Your task to perform on an android device: open app "Walmart Shopping & Grocery" (install if not already installed) and go to login screen Image 0: 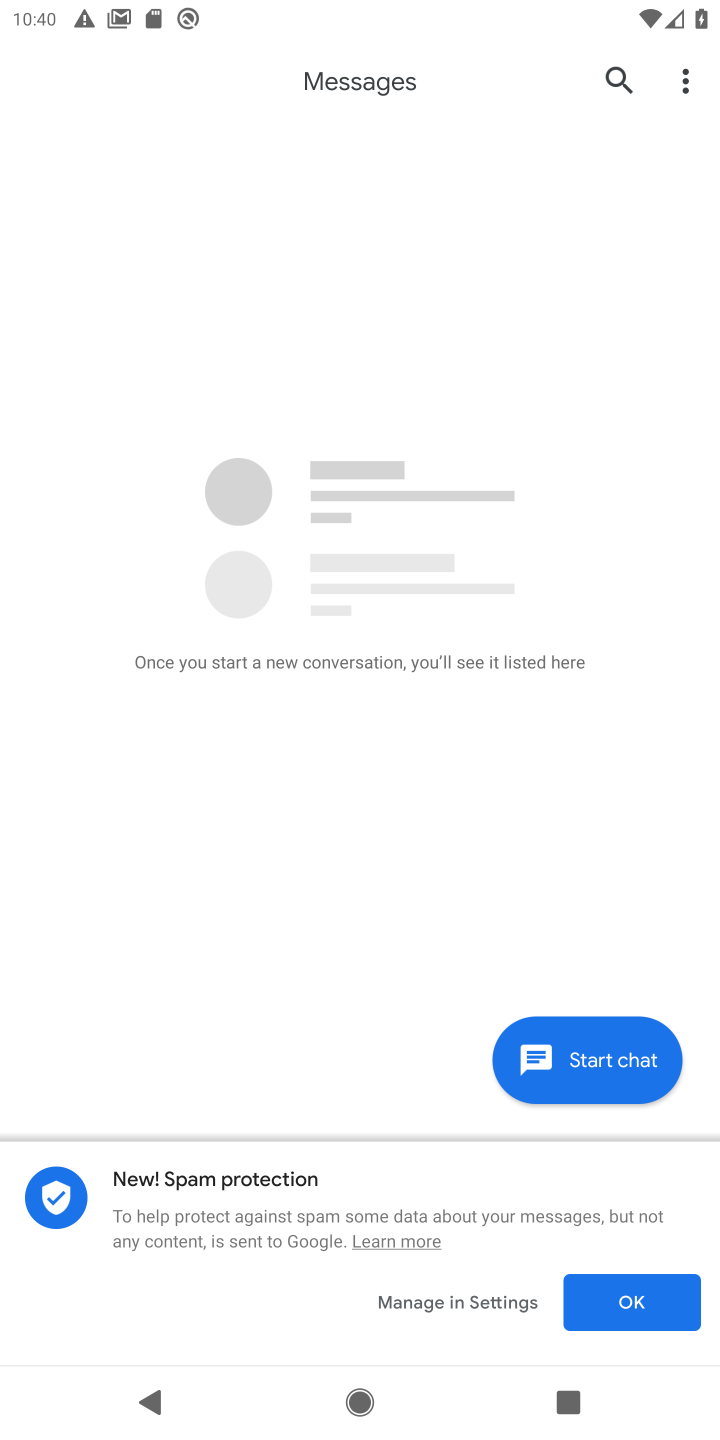
Step 0: press back button
Your task to perform on an android device: open app "Walmart Shopping & Grocery" (install if not already installed) and go to login screen Image 1: 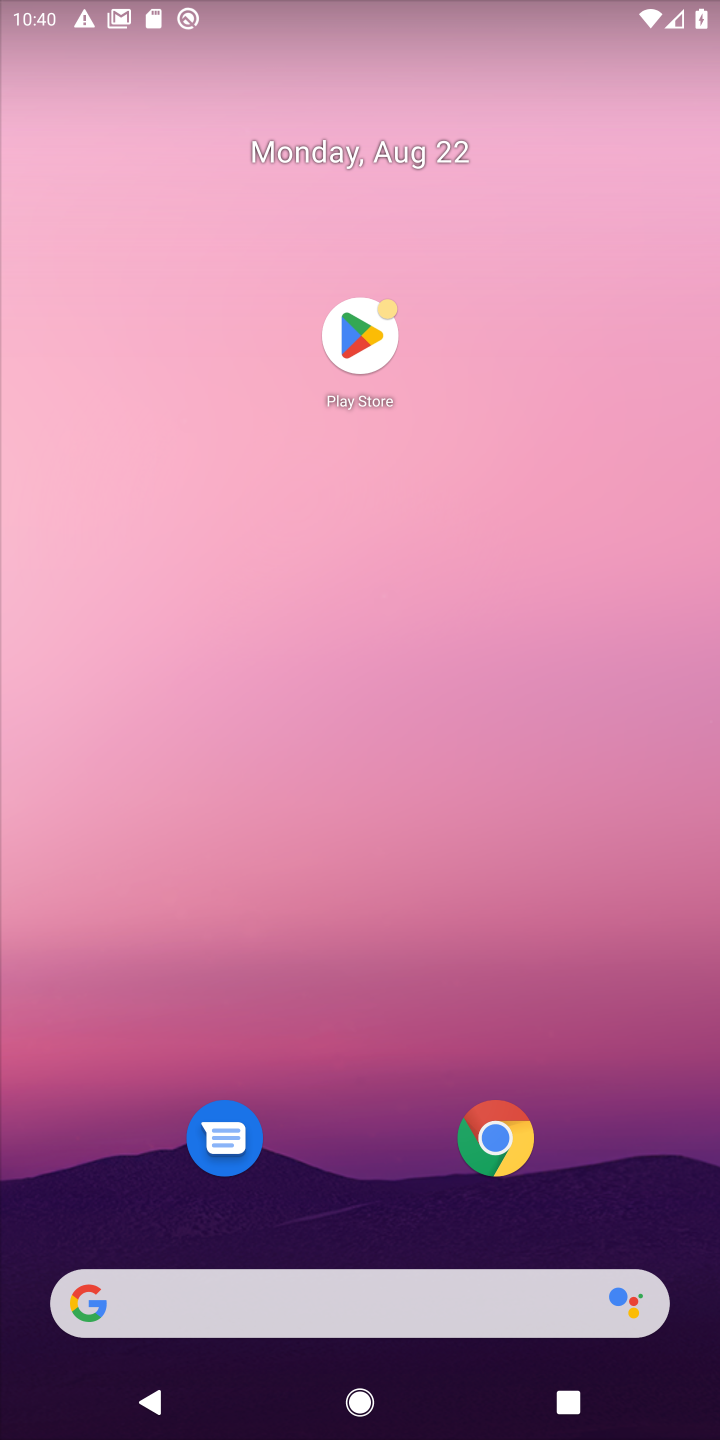
Step 1: click (354, 324)
Your task to perform on an android device: open app "Walmart Shopping & Grocery" (install if not already installed) and go to login screen Image 2: 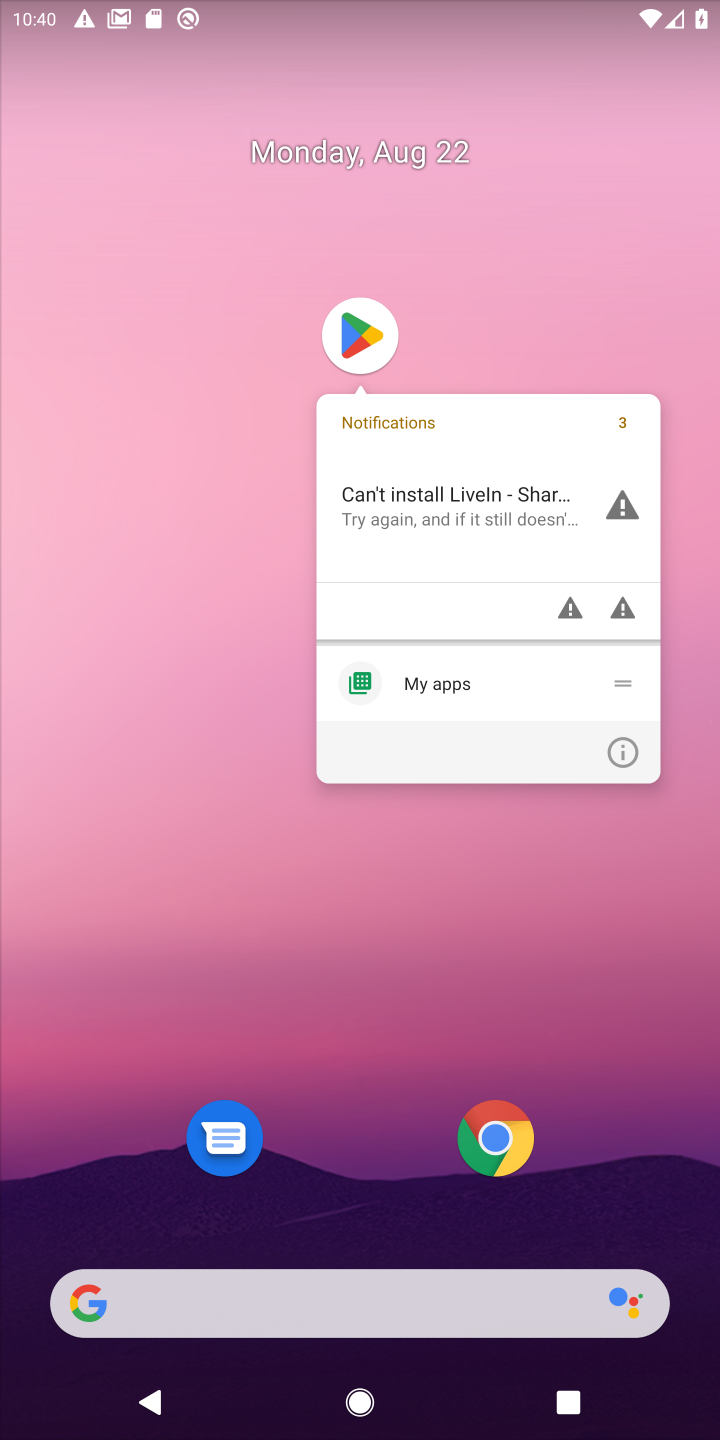
Step 2: click (354, 324)
Your task to perform on an android device: open app "Walmart Shopping & Grocery" (install if not already installed) and go to login screen Image 3: 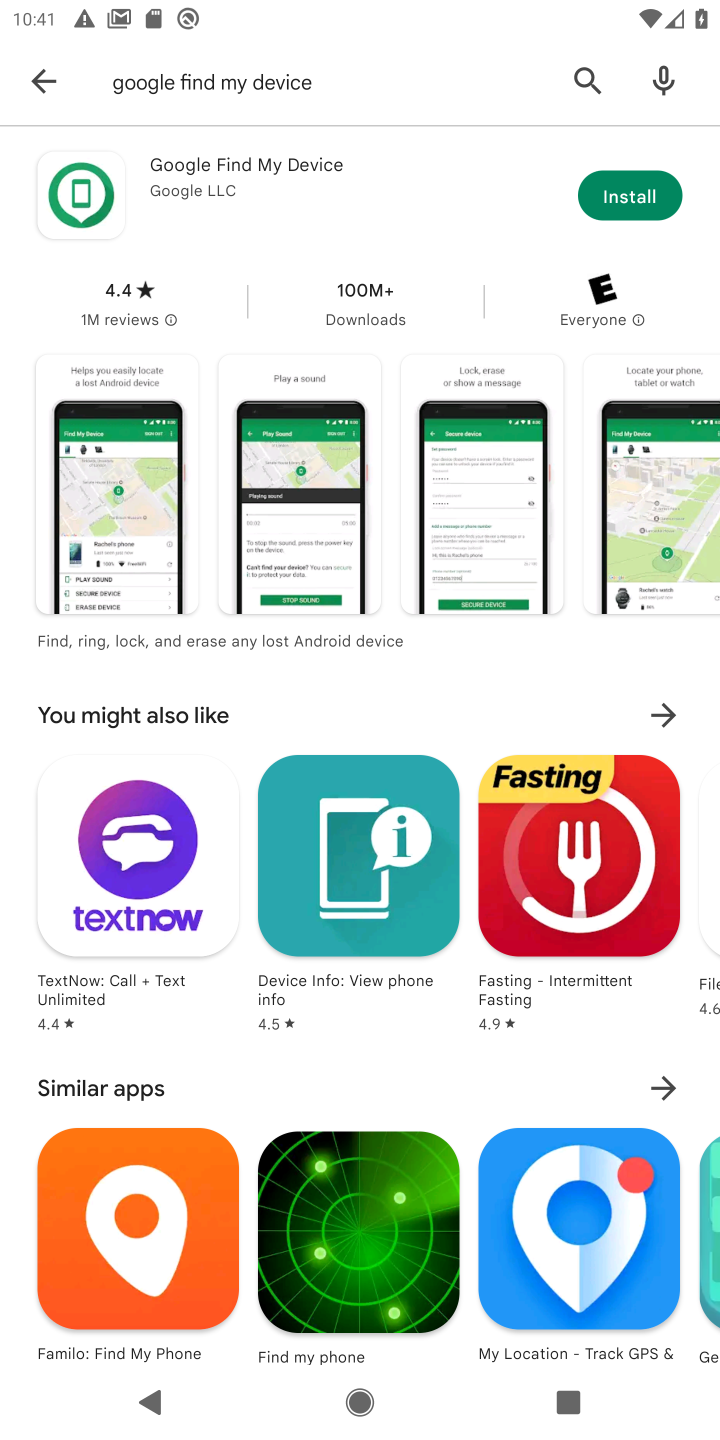
Step 3: click (587, 80)
Your task to perform on an android device: open app "Walmart Shopping & Grocery" (install if not already installed) and go to login screen Image 4: 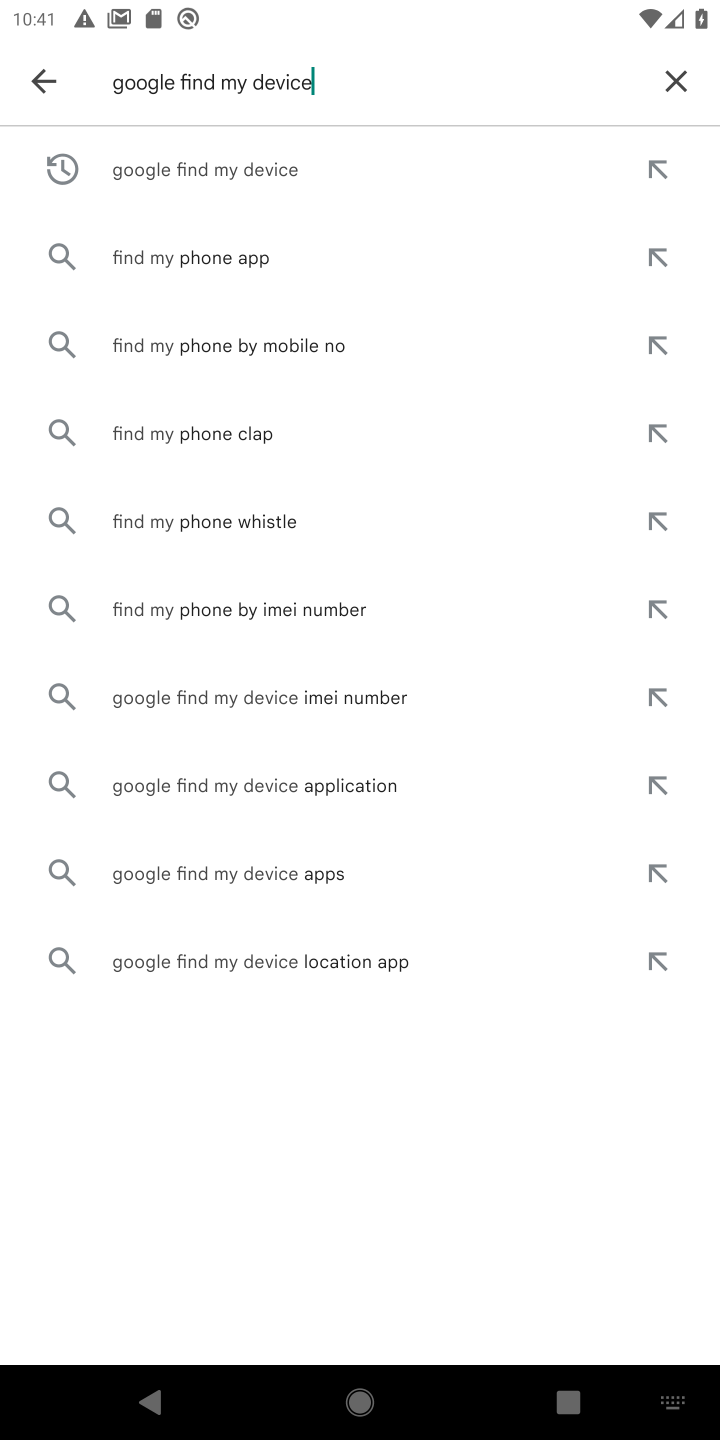
Step 4: click (676, 73)
Your task to perform on an android device: open app "Walmart Shopping & Grocery" (install if not already installed) and go to login screen Image 5: 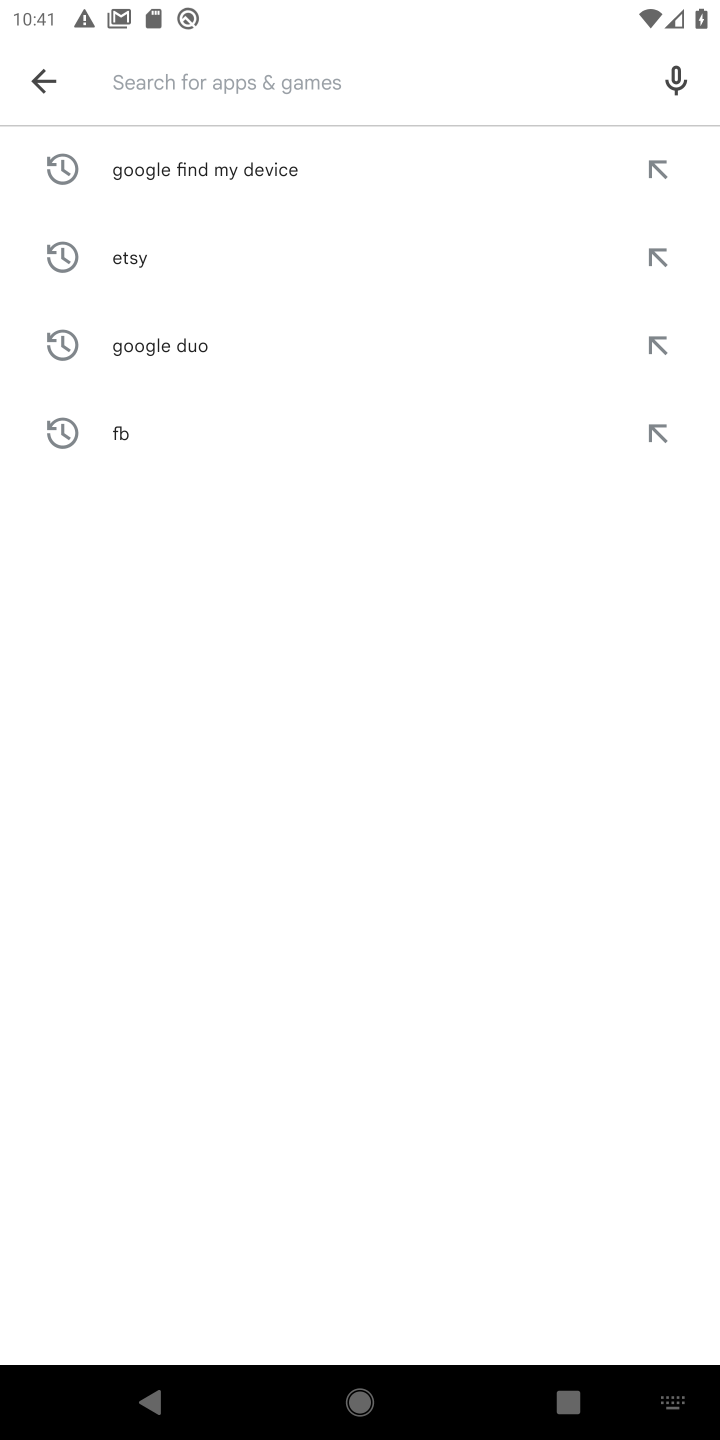
Step 5: type "walmart shopping"
Your task to perform on an android device: open app "Walmart Shopping & Grocery" (install if not already installed) and go to login screen Image 6: 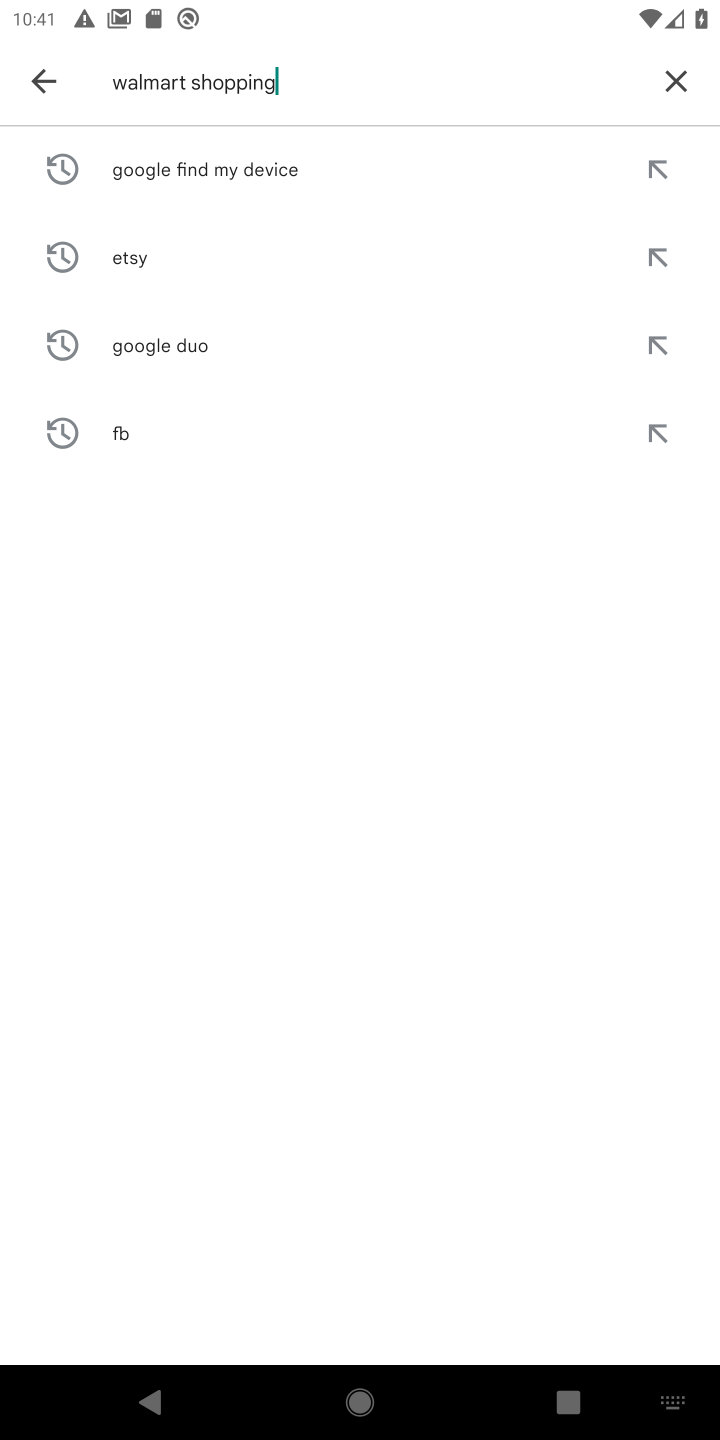
Step 6: type ""
Your task to perform on an android device: open app "Walmart Shopping & Grocery" (install if not already installed) and go to login screen Image 7: 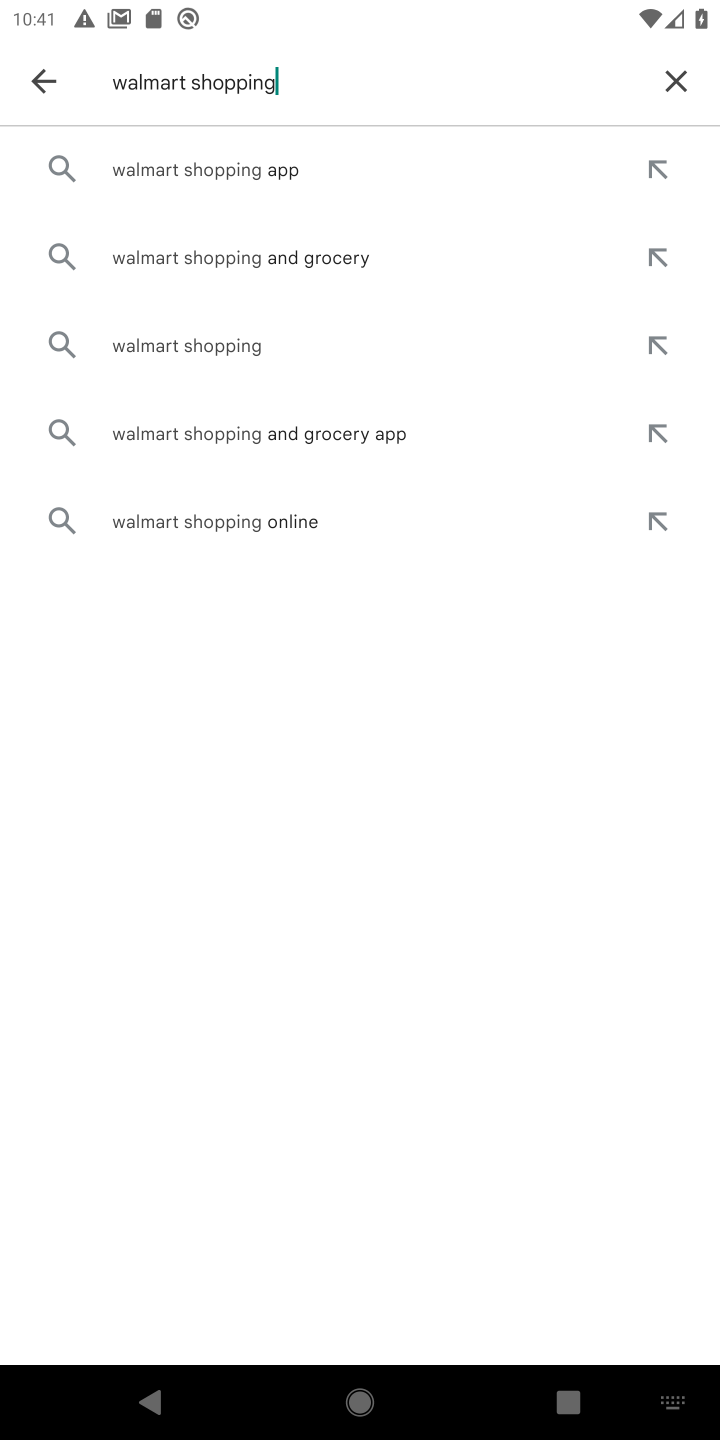
Step 7: click (260, 160)
Your task to perform on an android device: open app "Walmart Shopping & Grocery" (install if not already installed) and go to login screen Image 8: 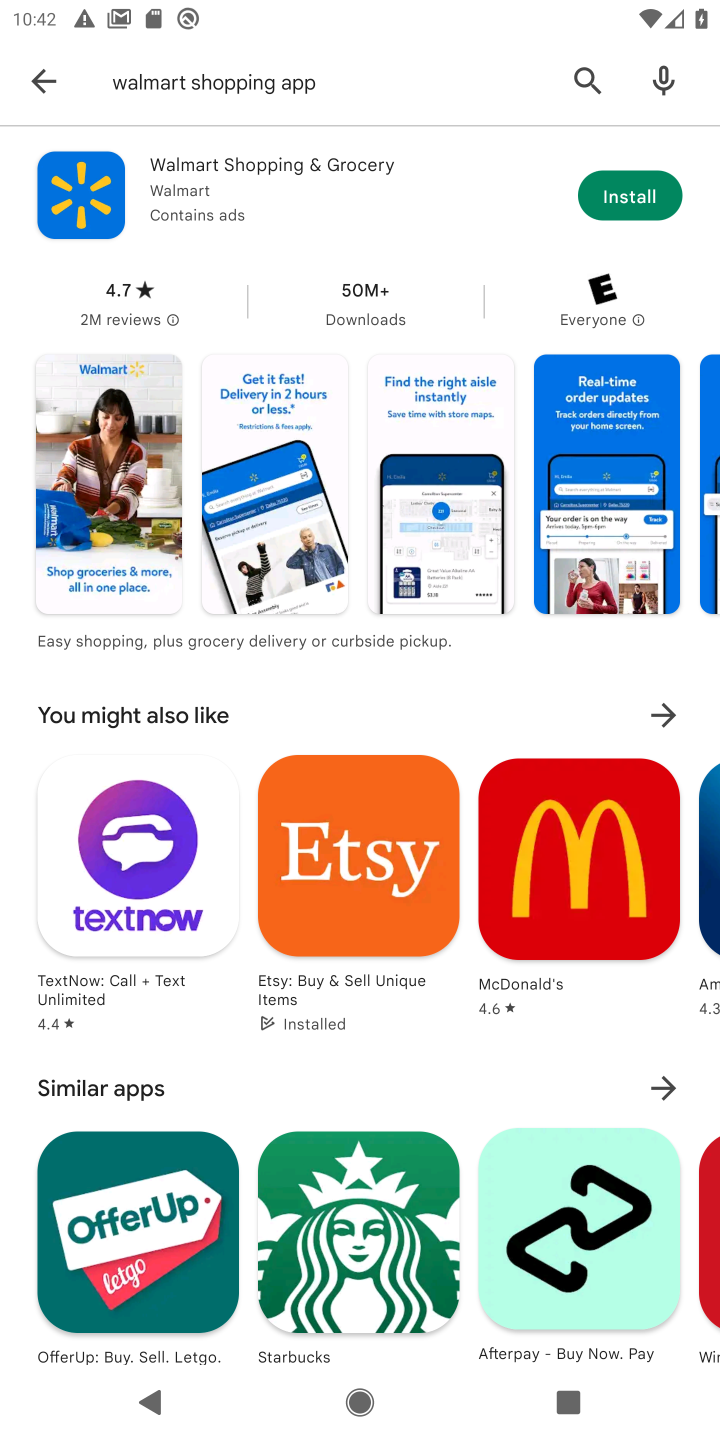
Step 8: click (604, 193)
Your task to perform on an android device: open app "Walmart Shopping & Grocery" (install if not already installed) and go to login screen Image 9: 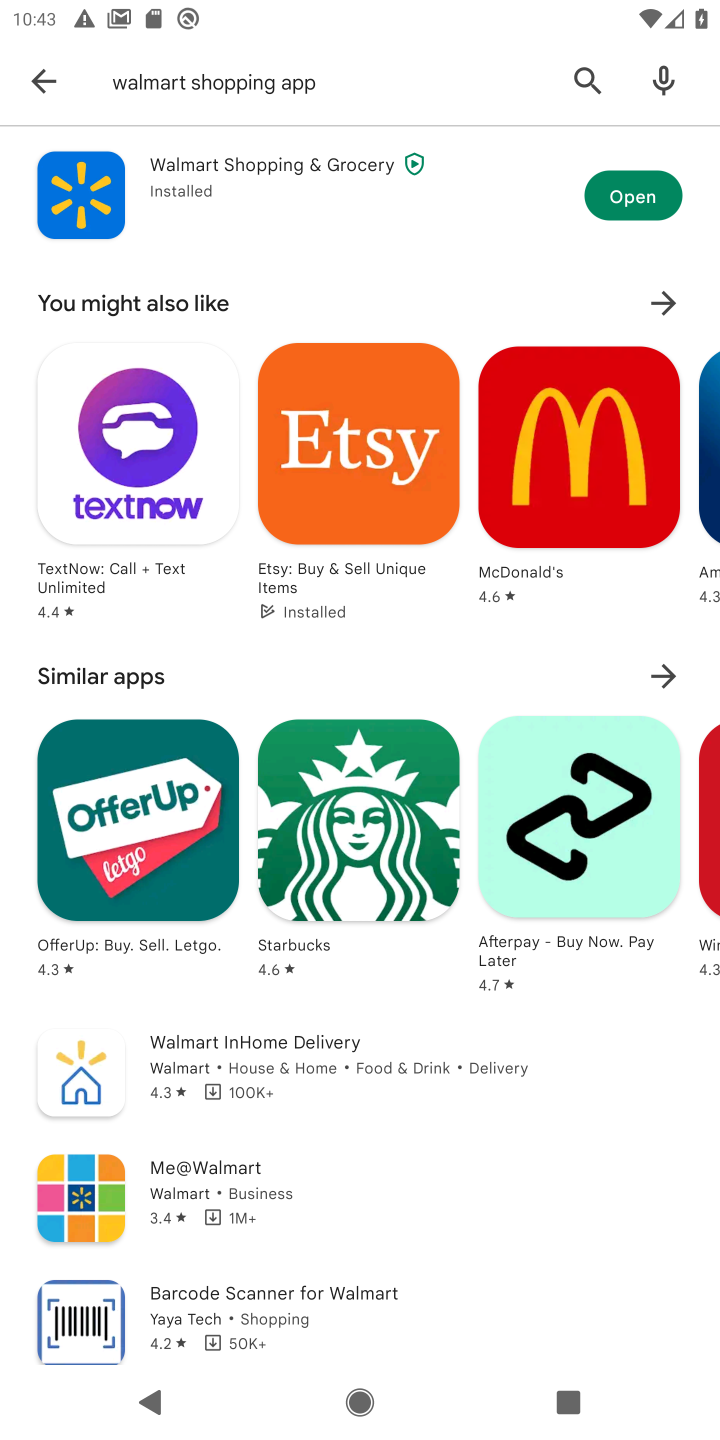
Step 9: click (587, 183)
Your task to perform on an android device: open app "Walmart Shopping & Grocery" (install if not already installed) and go to login screen Image 10: 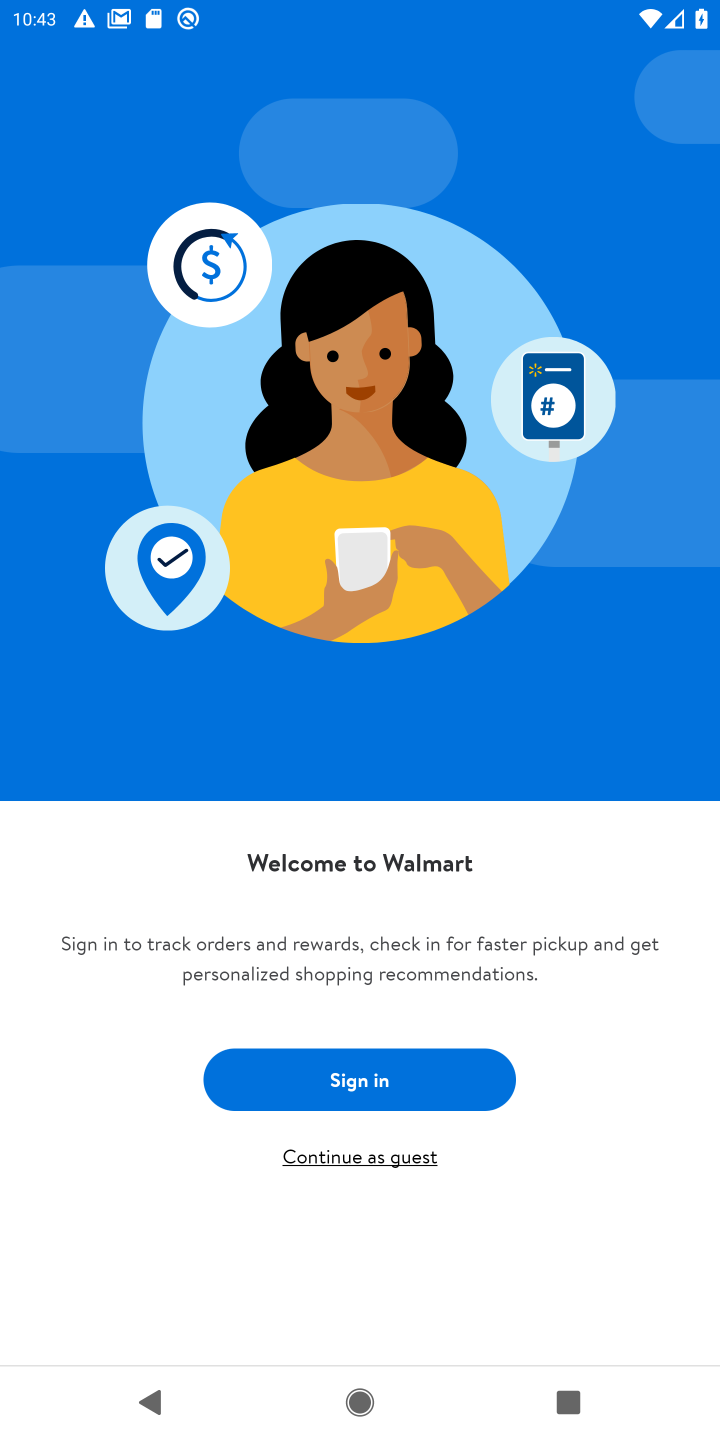
Step 10: click (418, 1079)
Your task to perform on an android device: open app "Walmart Shopping & Grocery" (install if not already installed) and go to login screen Image 11: 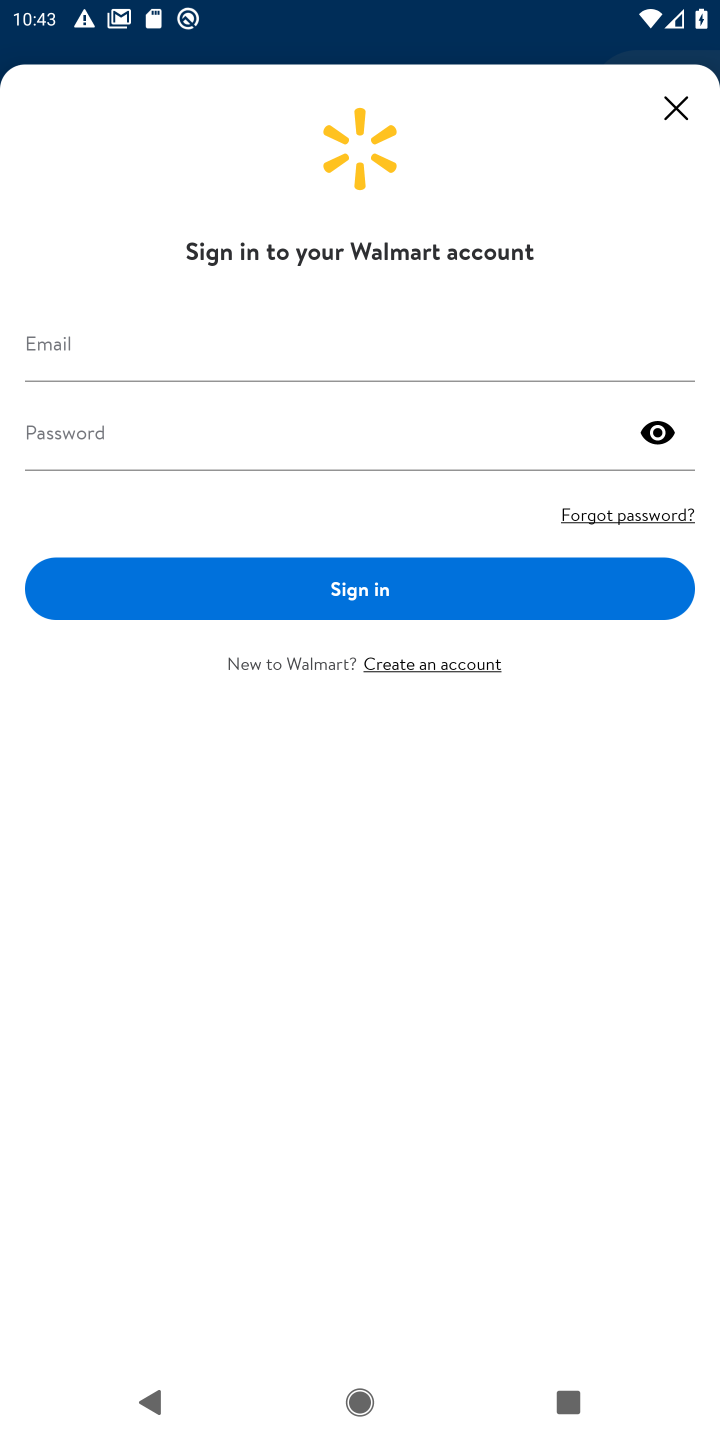
Step 11: task complete